Your task to perform on an android device: What's the weather today? Image 0: 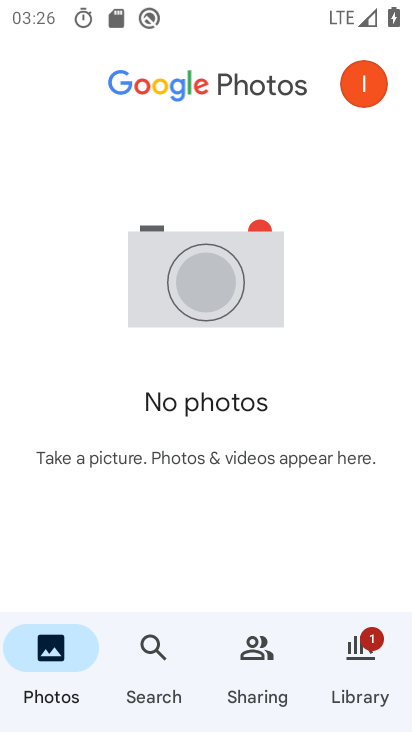
Step 0: press home button
Your task to perform on an android device: What's the weather today? Image 1: 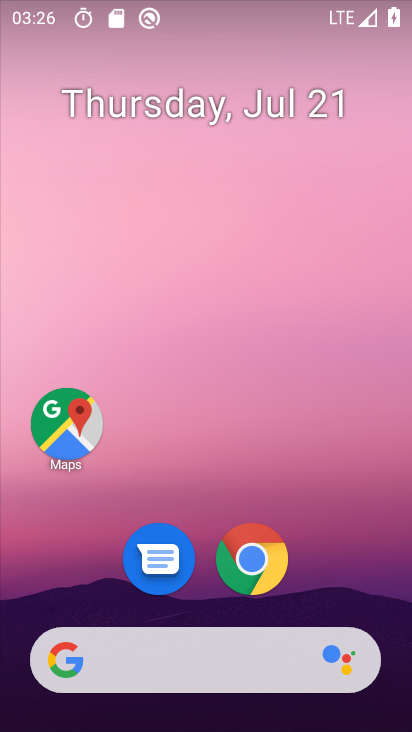
Step 1: click (267, 635)
Your task to perform on an android device: What's the weather today? Image 2: 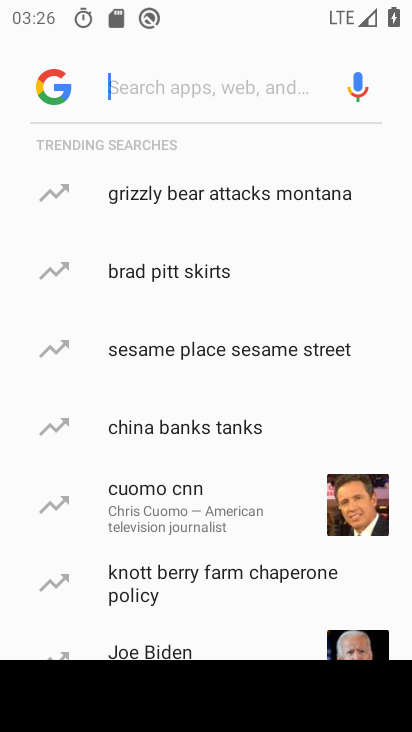
Step 2: type "weather today"
Your task to perform on an android device: What's the weather today? Image 3: 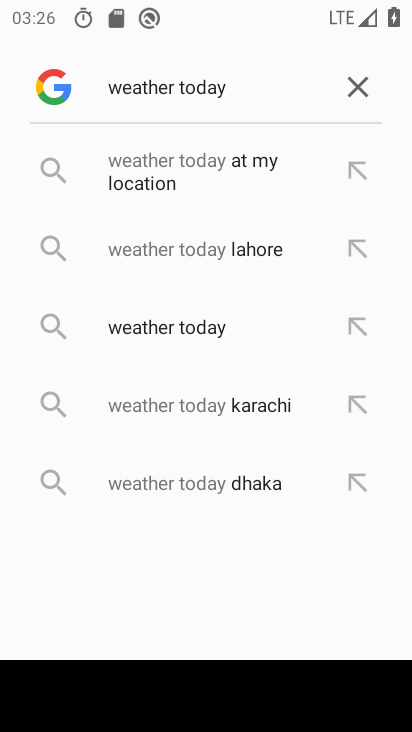
Step 3: click (223, 340)
Your task to perform on an android device: What's the weather today? Image 4: 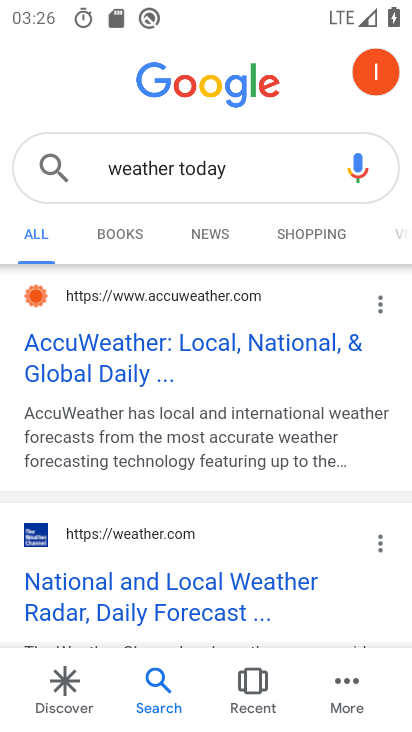
Step 4: task complete